Your task to perform on an android device: What is the average speed of a car? Image 0: 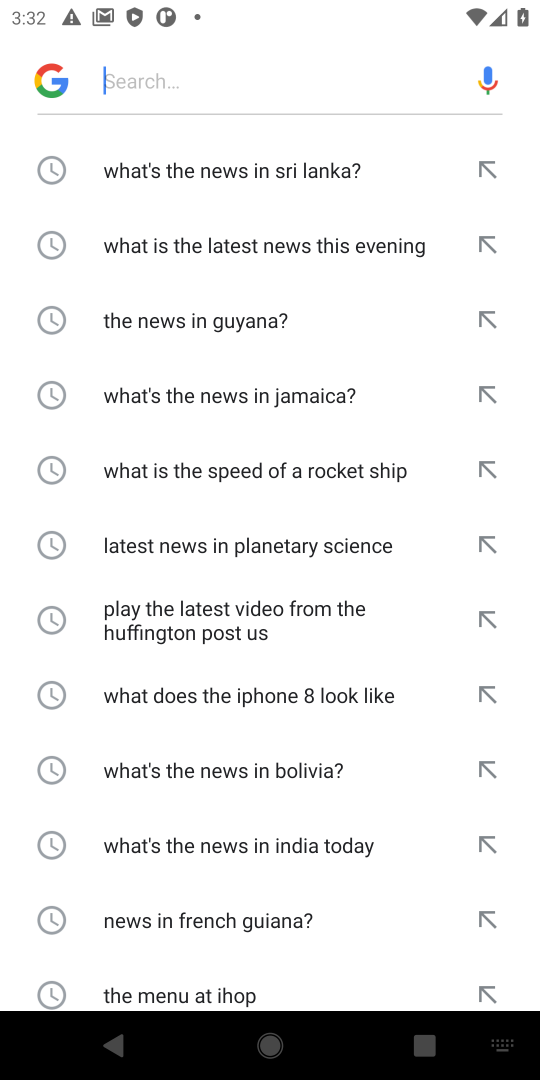
Step 0: press home button
Your task to perform on an android device: What is the average speed of a car? Image 1: 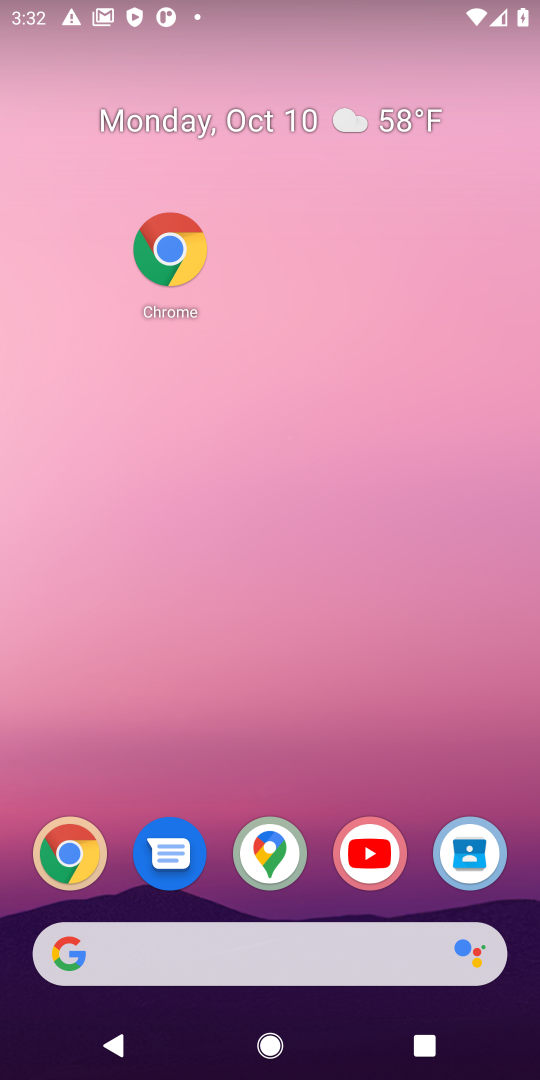
Step 1: click (164, 246)
Your task to perform on an android device: What is the average speed of a car? Image 2: 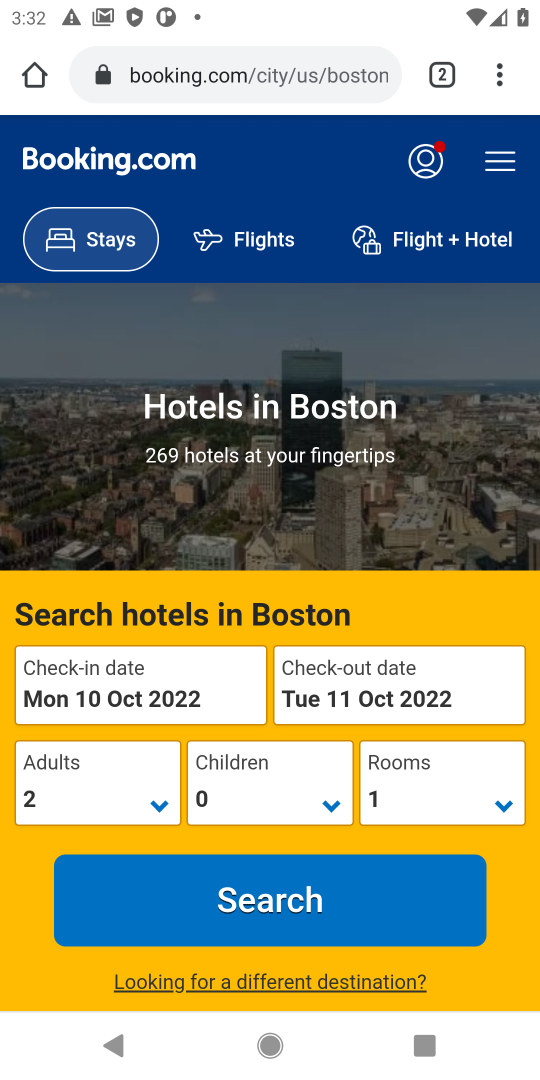
Step 2: click (241, 73)
Your task to perform on an android device: What is the average speed of a car? Image 3: 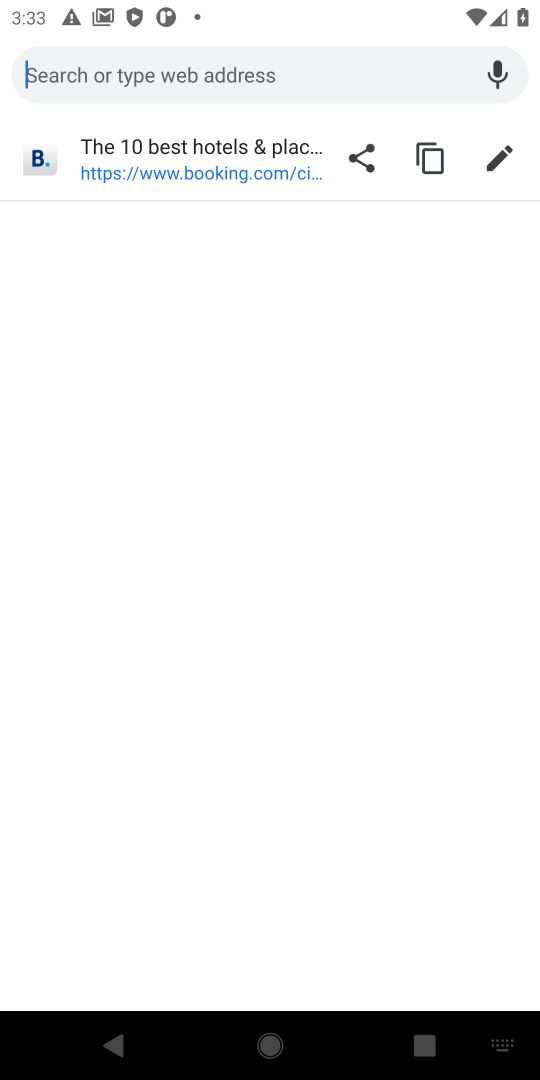
Step 3: type "What is the average speed of a car?"
Your task to perform on an android device: What is the average speed of a car? Image 4: 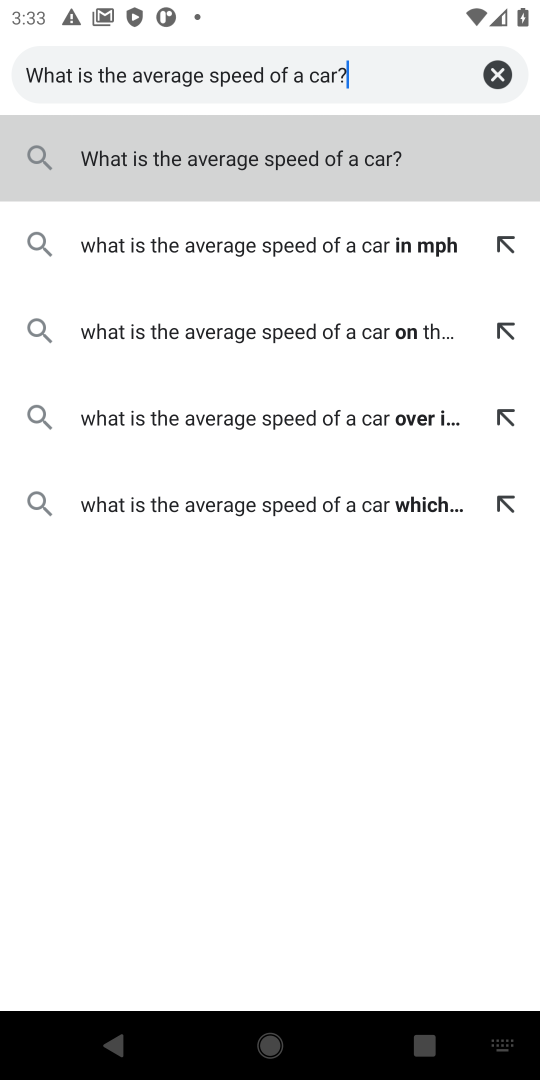
Step 4: click (279, 175)
Your task to perform on an android device: What is the average speed of a car? Image 5: 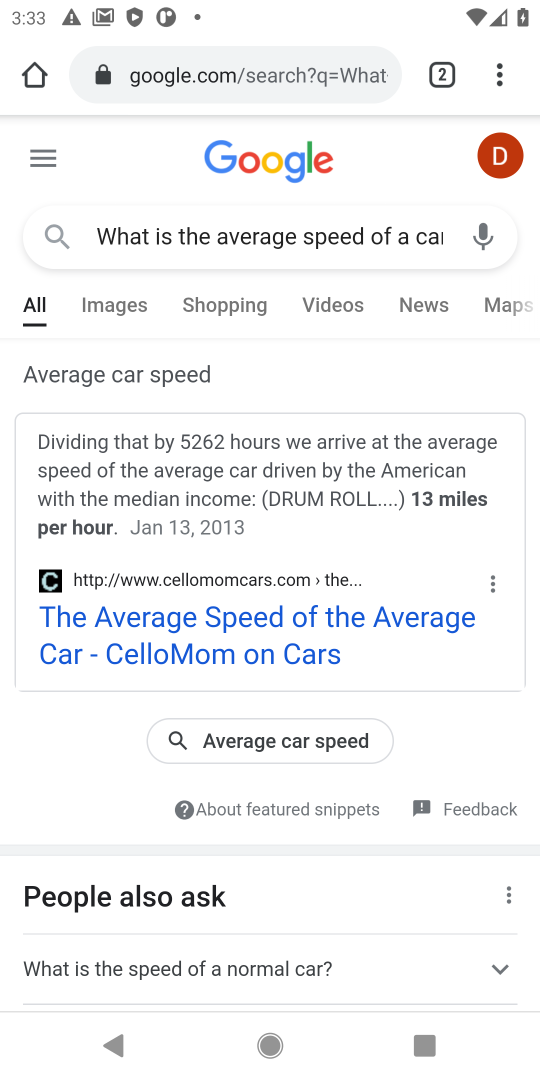
Step 5: task complete